Your task to perform on an android device: Show me productivity apps on the Play Store Image 0: 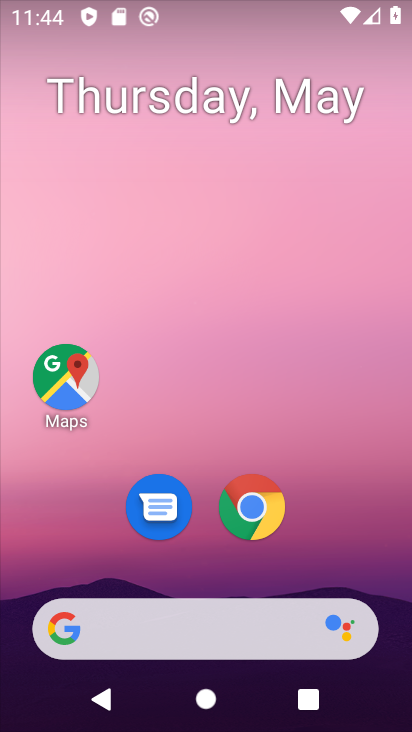
Step 0: drag from (221, 631) to (279, 67)
Your task to perform on an android device: Show me productivity apps on the Play Store Image 1: 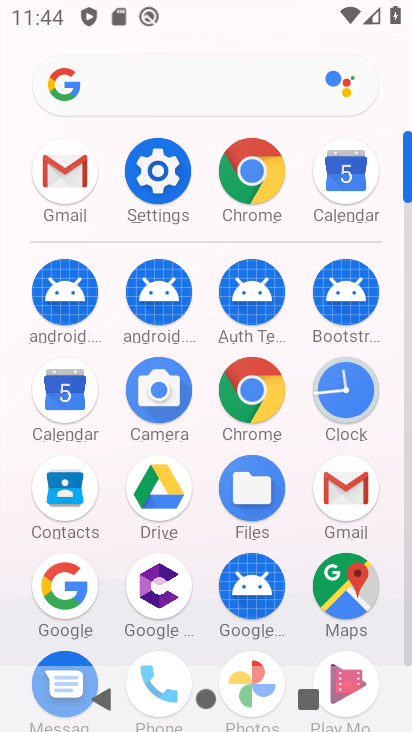
Step 1: drag from (275, 504) to (297, 186)
Your task to perform on an android device: Show me productivity apps on the Play Store Image 2: 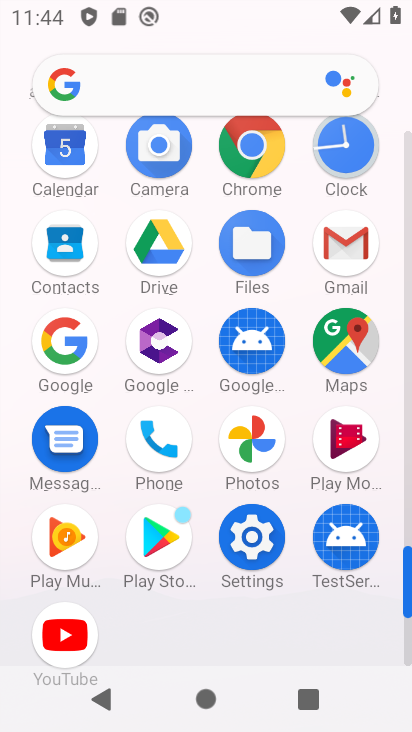
Step 2: click (166, 539)
Your task to perform on an android device: Show me productivity apps on the Play Store Image 3: 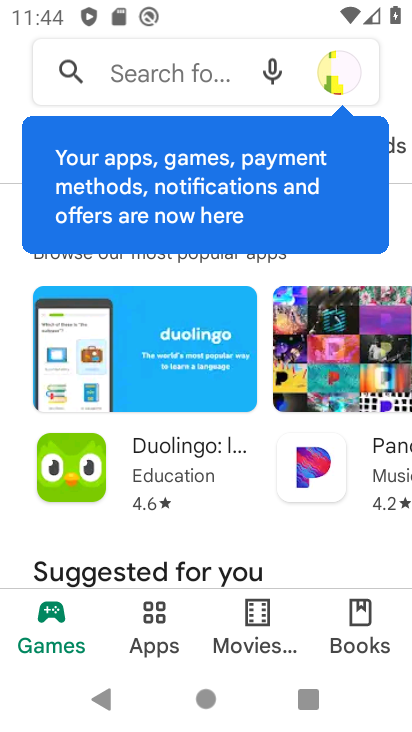
Step 3: click (183, 90)
Your task to perform on an android device: Show me productivity apps on the Play Store Image 4: 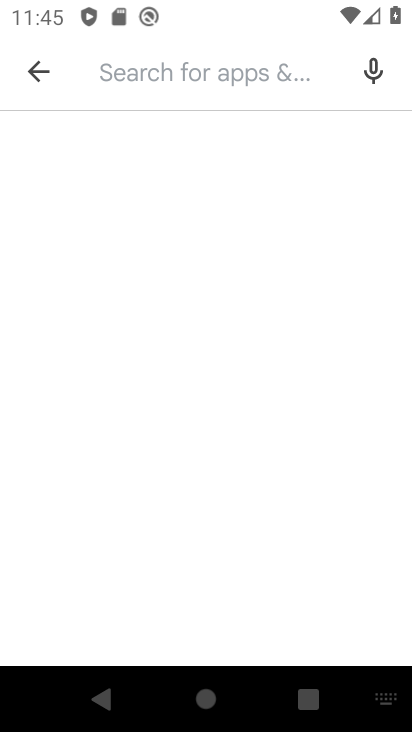
Step 4: type "productivity aaps"
Your task to perform on an android device: Show me productivity apps on the Play Store Image 5: 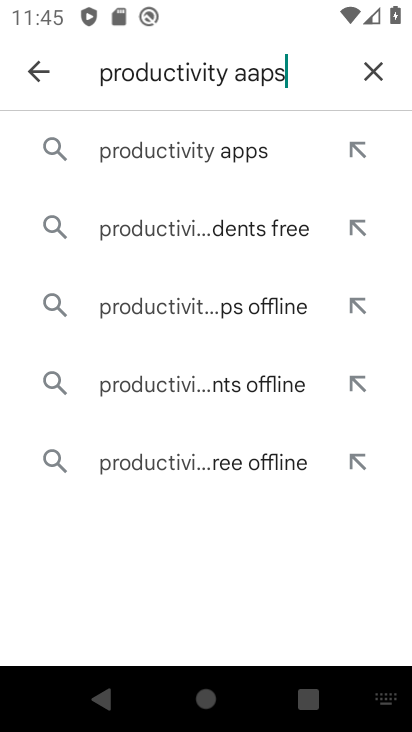
Step 5: click (172, 143)
Your task to perform on an android device: Show me productivity apps on the Play Store Image 6: 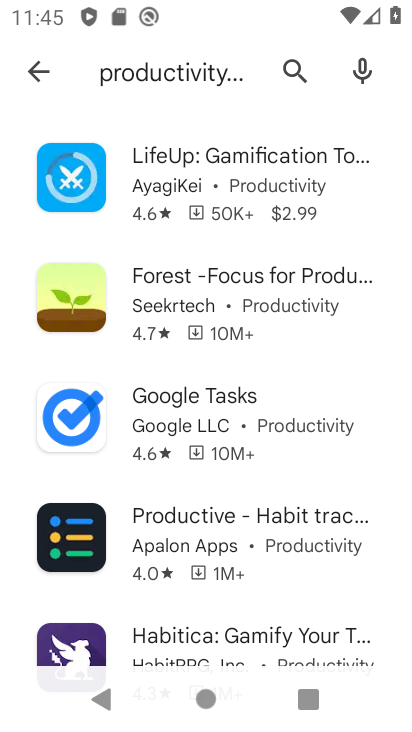
Step 6: task complete